Your task to perform on an android device: turn off notifications settings in the gmail app Image 0: 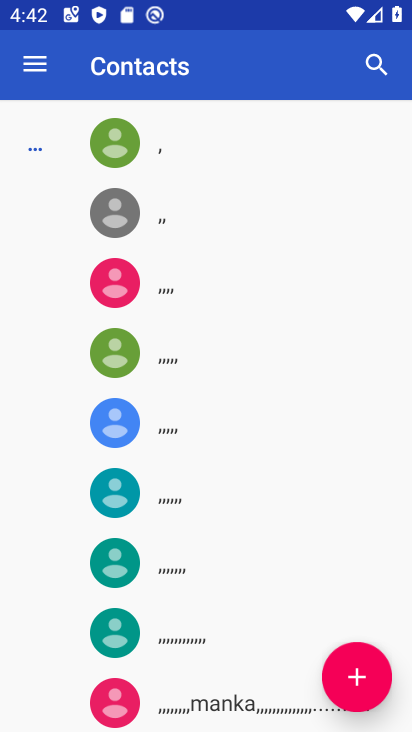
Step 0: press home button
Your task to perform on an android device: turn off notifications settings in the gmail app Image 1: 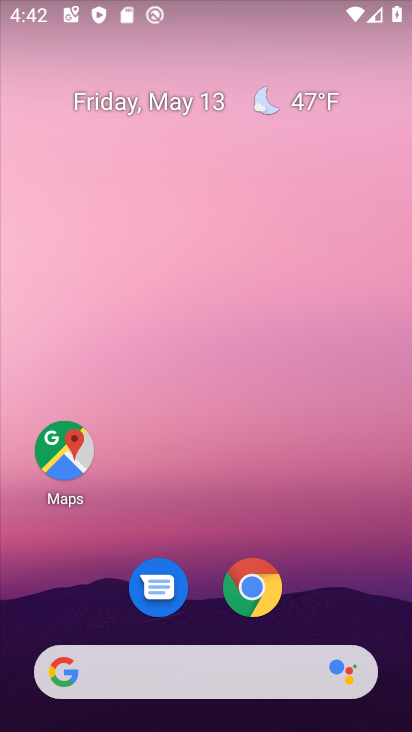
Step 1: drag from (309, 599) to (295, 150)
Your task to perform on an android device: turn off notifications settings in the gmail app Image 2: 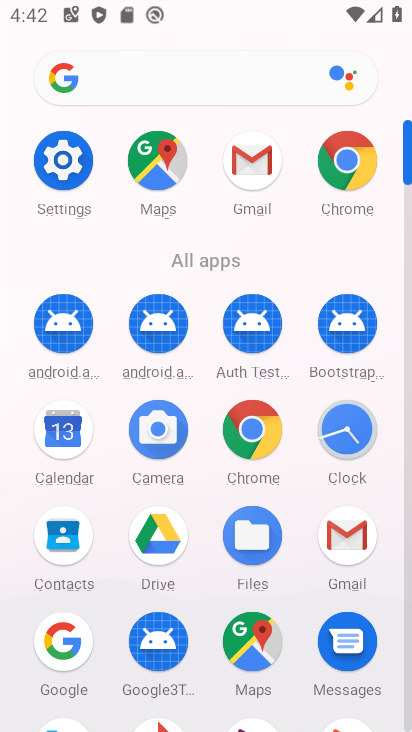
Step 2: click (339, 531)
Your task to perform on an android device: turn off notifications settings in the gmail app Image 3: 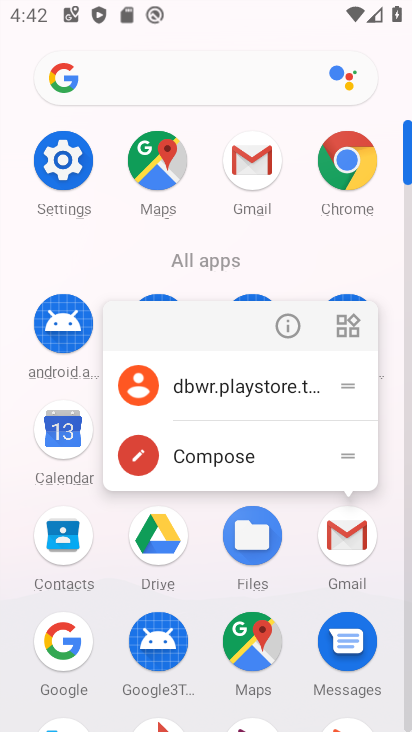
Step 3: click (295, 329)
Your task to perform on an android device: turn off notifications settings in the gmail app Image 4: 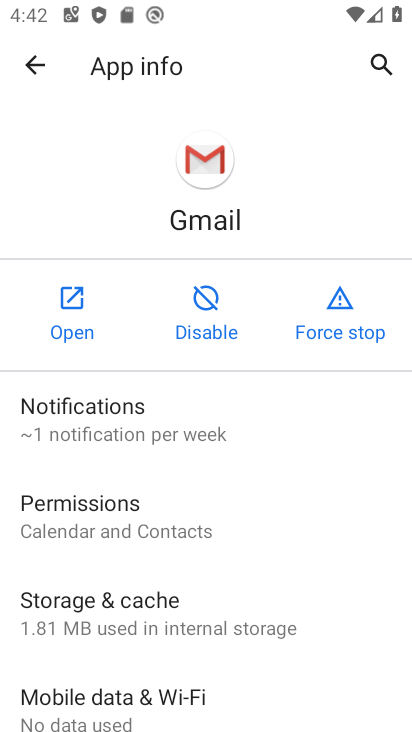
Step 4: click (64, 404)
Your task to perform on an android device: turn off notifications settings in the gmail app Image 5: 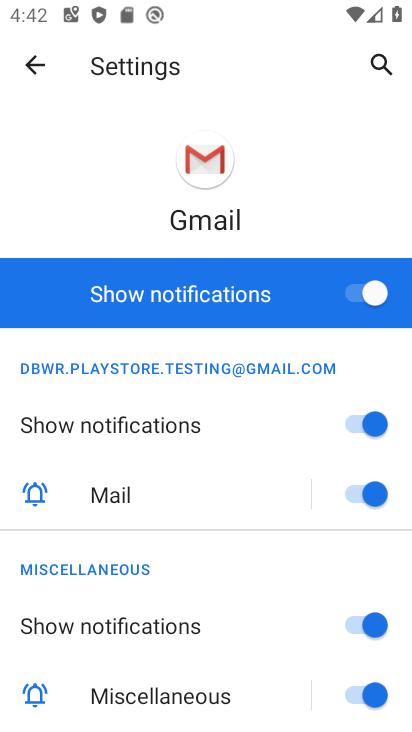
Step 5: click (360, 295)
Your task to perform on an android device: turn off notifications settings in the gmail app Image 6: 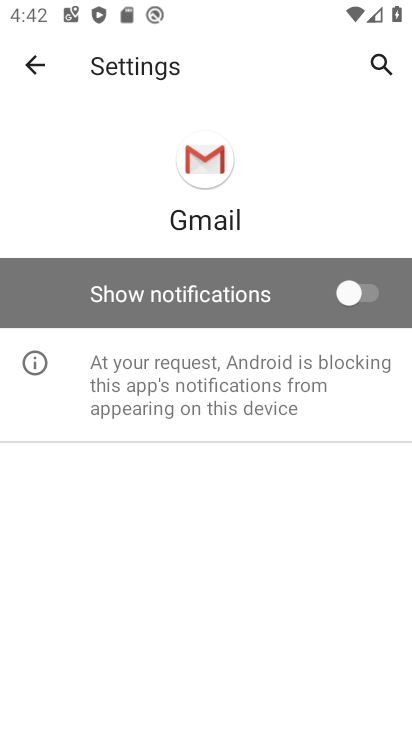
Step 6: task complete